Your task to perform on an android device: Set the phone to "Do not disturb". Image 0: 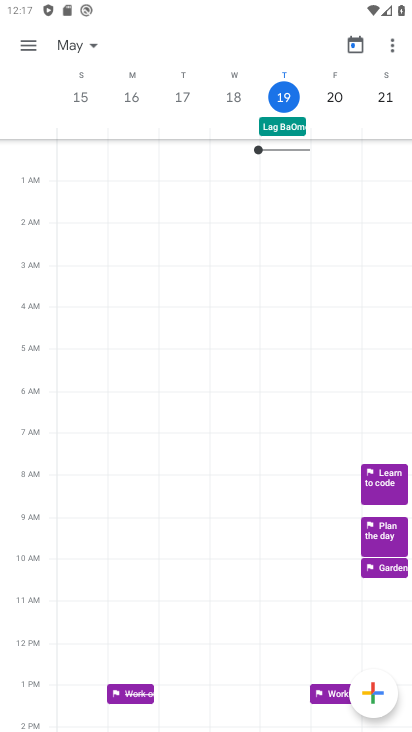
Step 0: press home button
Your task to perform on an android device: Set the phone to "Do not disturb". Image 1: 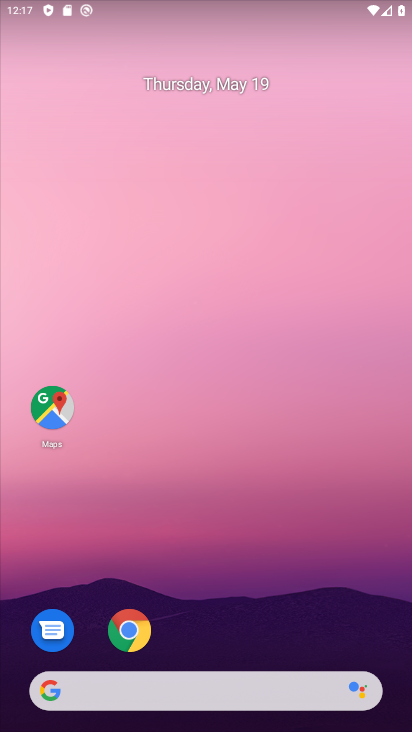
Step 1: drag from (329, 0) to (300, 395)
Your task to perform on an android device: Set the phone to "Do not disturb". Image 2: 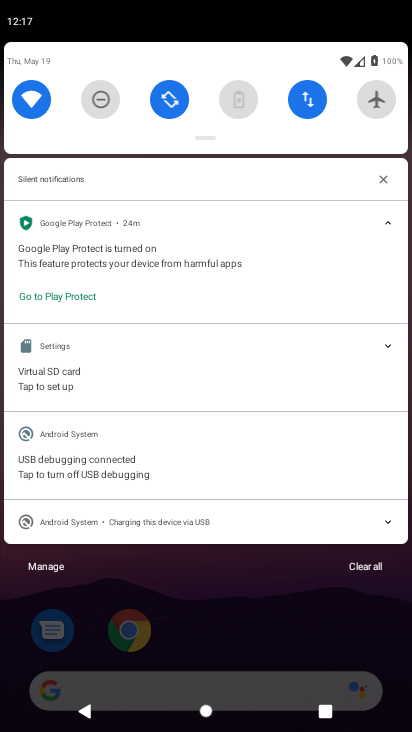
Step 2: click (95, 108)
Your task to perform on an android device: Set the phone to "Do not disturb". Image 3: 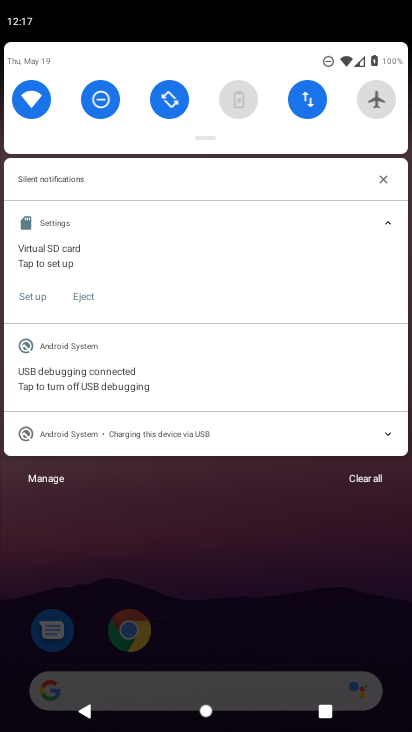
Step 3: task complete